Your task to perform on an android device: open a new tab in the chrome app Image 0: 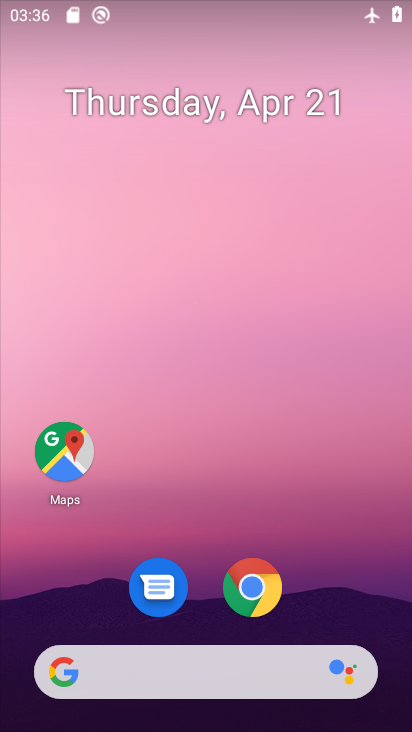
Step 0: drag from (345, 599) to (354, 197)
Your task to perform on an android device: open a new tab in the chrome app Image 1: 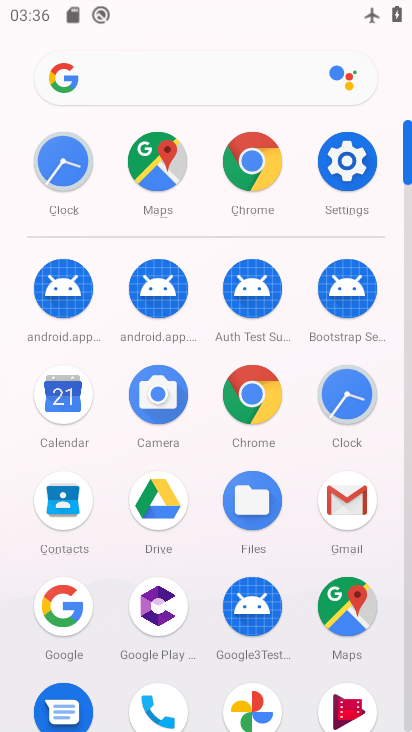
Step 1: click (267, 411)
Your task to perform on an android device: open a new tab in the chrome app Image 2: 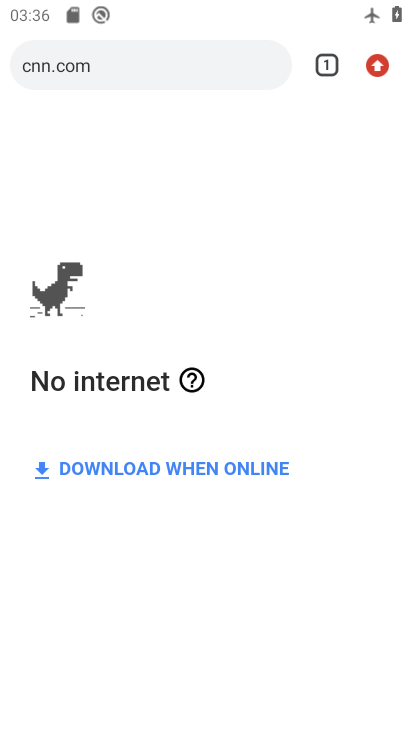
Step 2: click (376, 69)
Your task to perform on an android device: open a new tab in the chrome app Image 3: 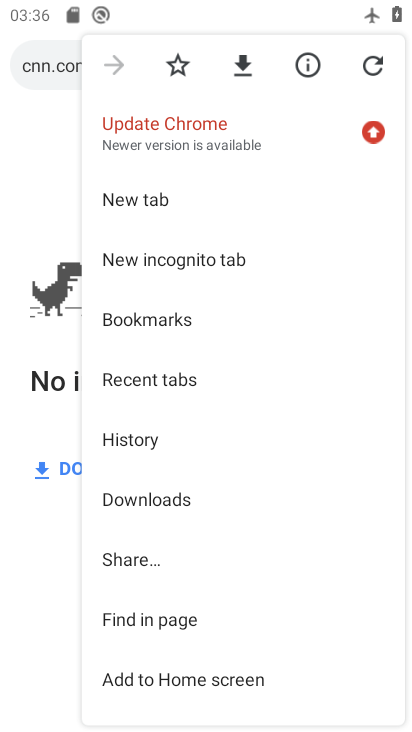
Step 3: click (175, 201)
Your task to perform on an android device: open a new tab in the chrome app Image 4: 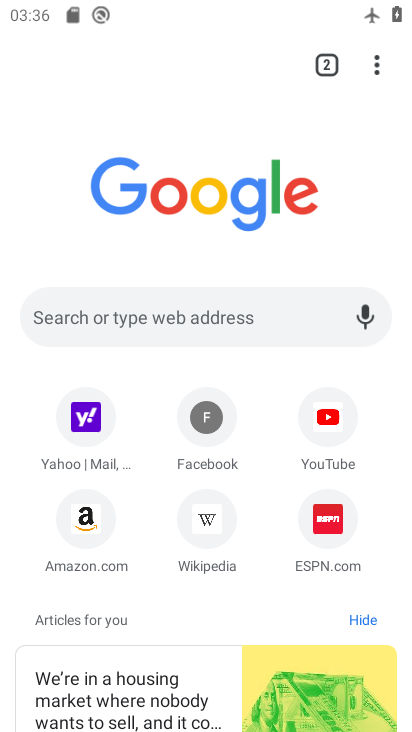
Step 4: task complete